Your task to perform on an android device: turn off sleep mode Image 0: 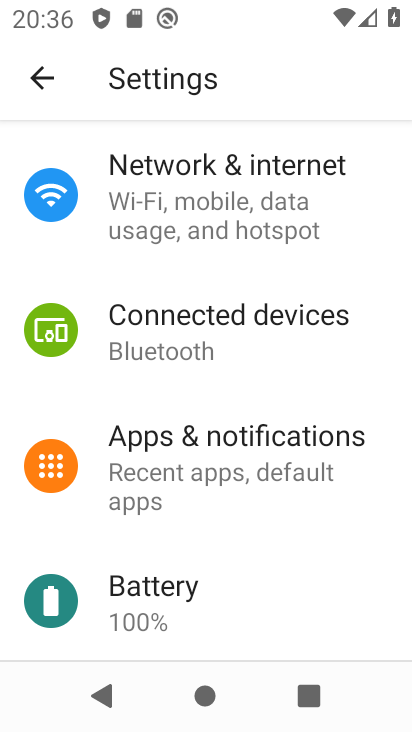
Step 0: drag from (152, 591) to (67, 199)
Your task to perform on an android device: turn off sleep mode Image 1: 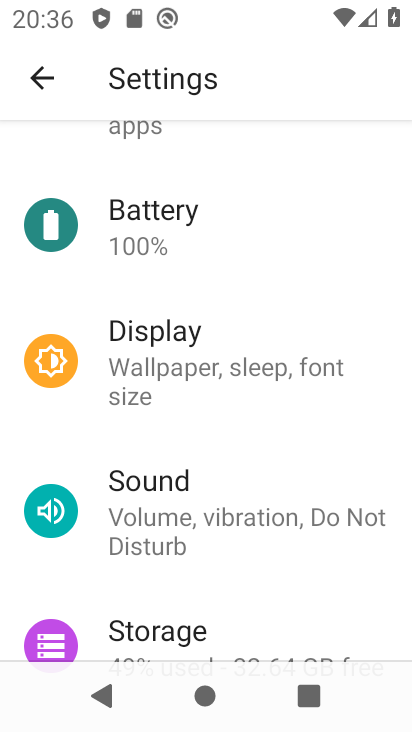
Step 1: click (168, 368)
Your task to perform on an android device: turn off sleep mode Image 2: 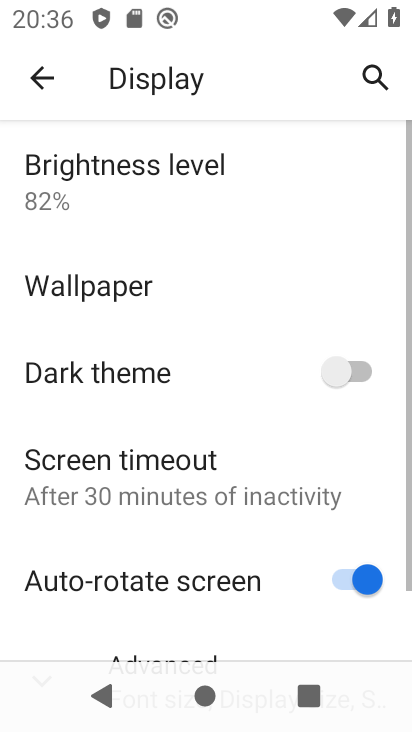
Step 2: task complete